Your task to perform on an android device: turn on sleep mode Image 0: 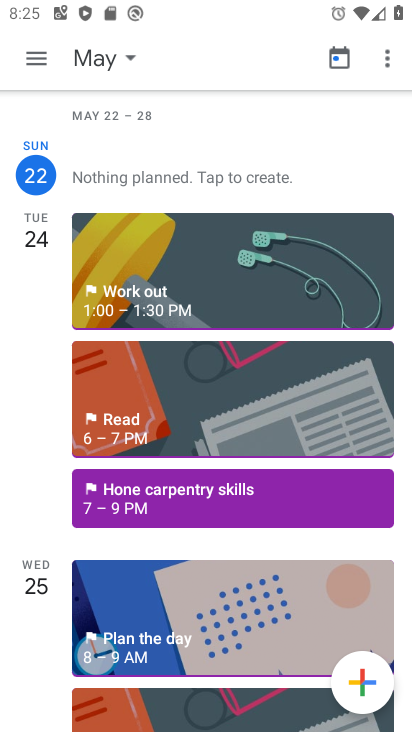
Step 0: press home button
Your task to perform on an android device: turn on sleep mode Image 1: 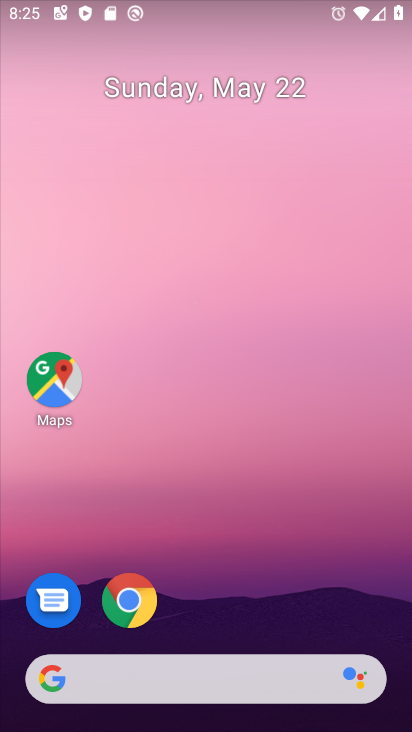
Step 1: drag from (292, 650) to (282, 292)
Your task to perform on an android device: turn on sleep mode Image 2: 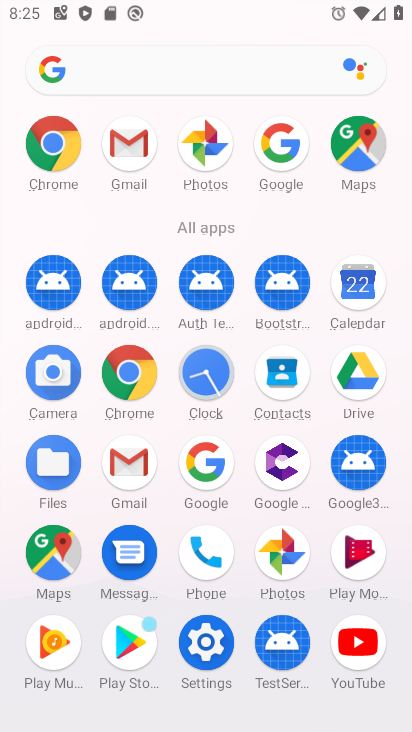
Step 2: click (201, 646)
Your task to perform on an android device: turn on sleep mode Image 3: 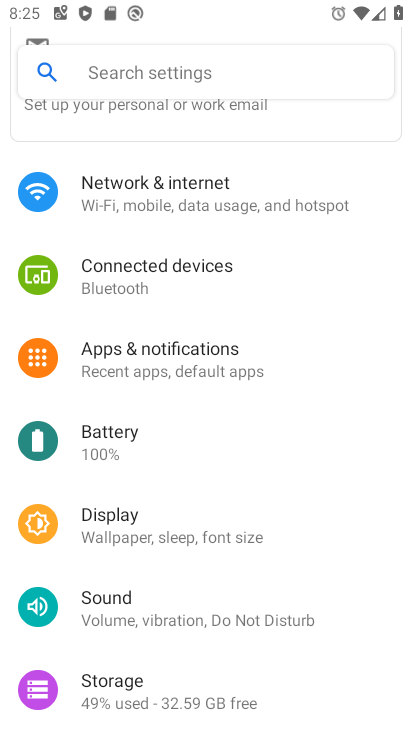
Step 3: click (216, 534)
Your task to perform on an android device: turn on sleep mode Image 4: 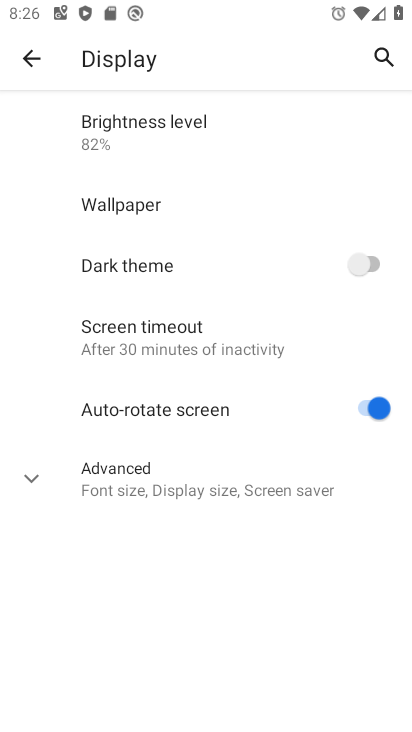
Step 4: click (251, 481)
Your task to perform on an android device: turn on sleep mode Image 5: 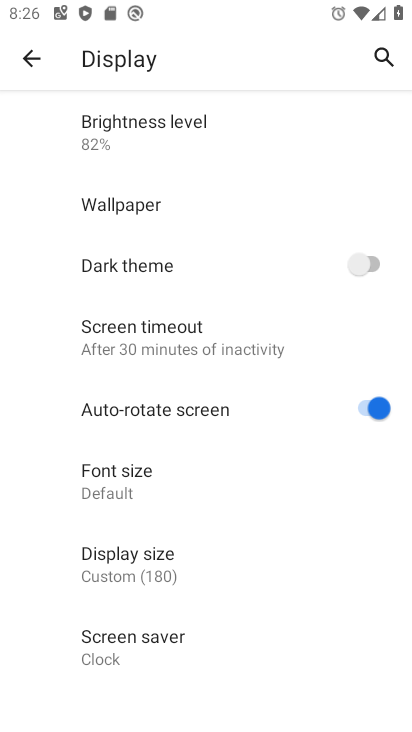
Step 5: task complete